Your task to perform on an android device: Do I have any events this weekend? Image 0: 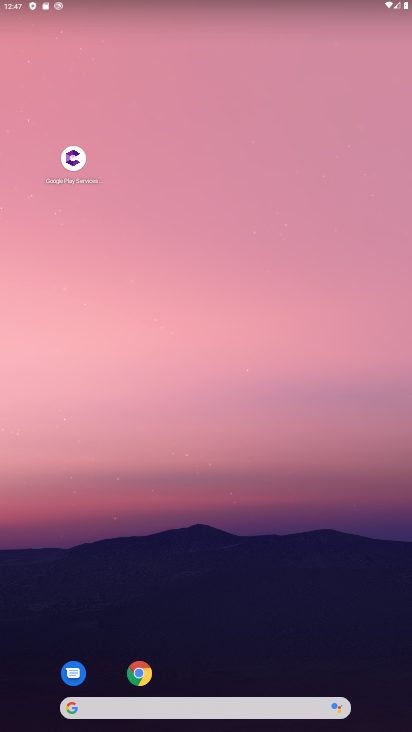
Step 0: drag from (357, 661) to (315, 215)
Your task to perform on an android device: Do I have any events this weekend? Image 1: 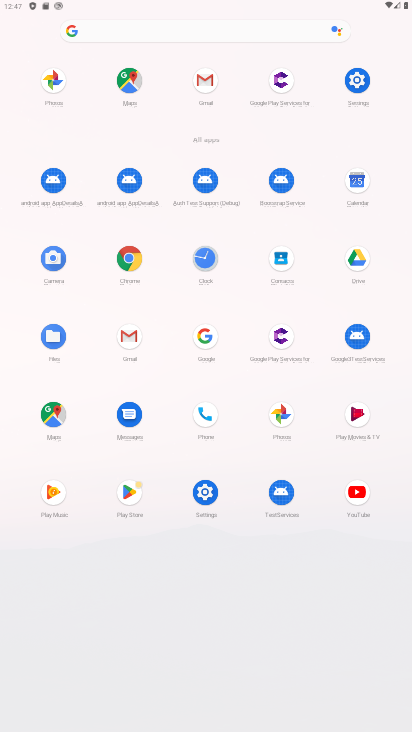
Step 1: click (356, 179)
Your task to perform on an android device: Do I have any events this weekend? Image 2: 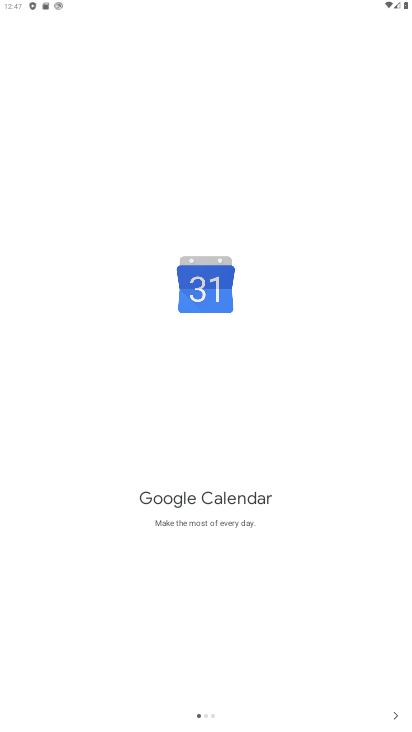
Step 2: click (395, 716)
Your task to perform on an android device: Do I have any events this weekend? Image 3: 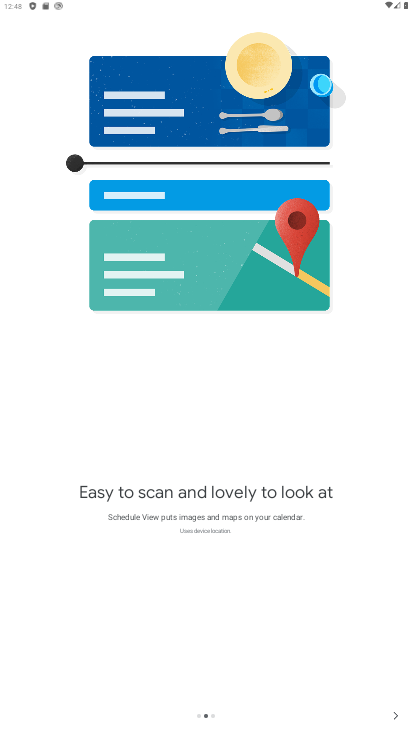
Step 3: click (395, 716)
Your task to perform on an android device: Do I have any events this weekend? Image 4: 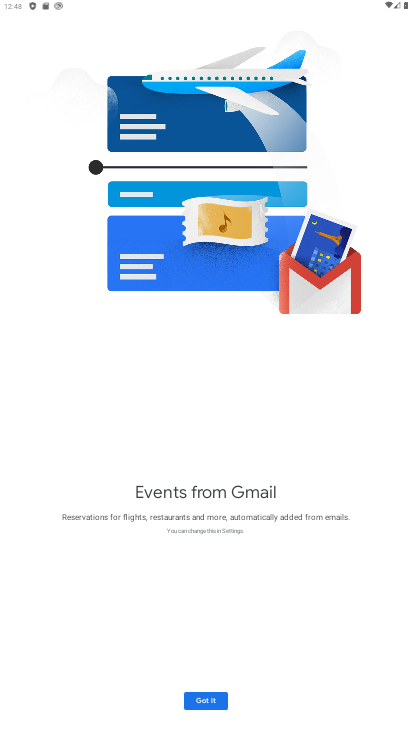
Step 4: click (201, 698)
Your task to perform on an android device: Do I have any events this weekend? Image 5: 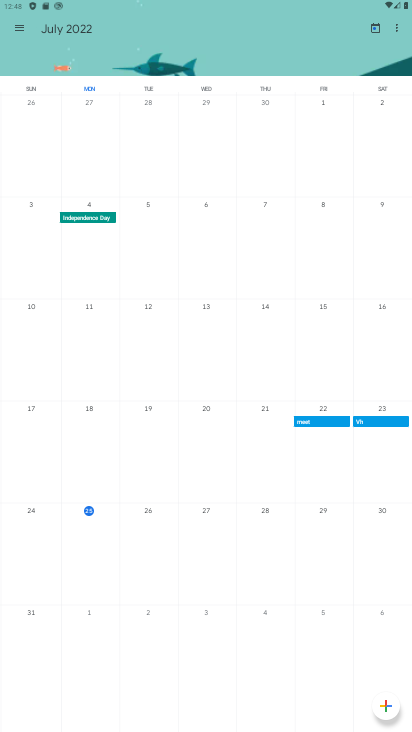
Step 5: click (18, 27)
Your task to perform on an android device: Do I have any events this weekend? Image 6: 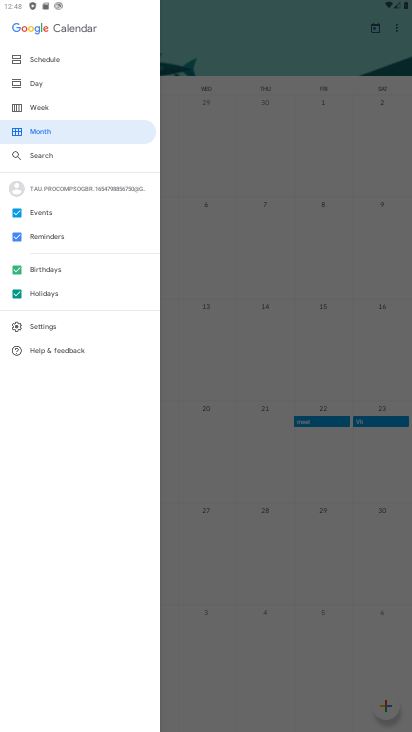
Step 6: click (33, 108)
Your task to perform on an android device: Do I have any events this weekend? Image 7: 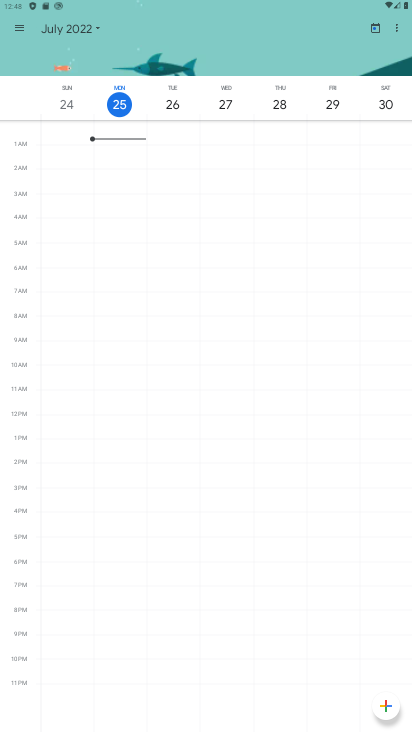
Step 7: click (97, 28)
Your task to perform on an android device: Do I have any events this weekend? Image 8: 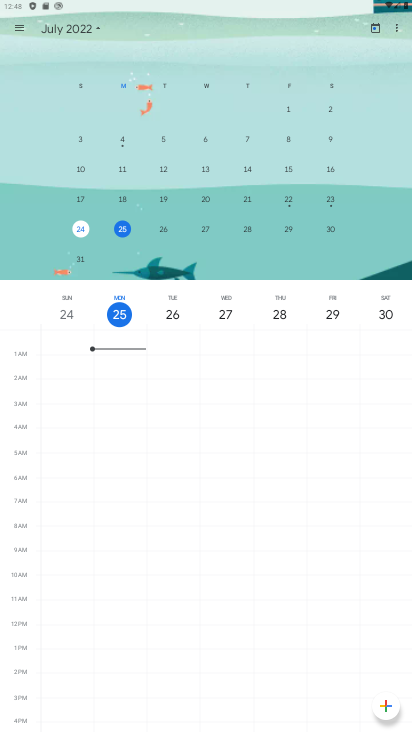
Step 8: drag from (334, 182) to (286, 194)
Your task to perform on an android device: Do I have any events this weekend? Image 9: 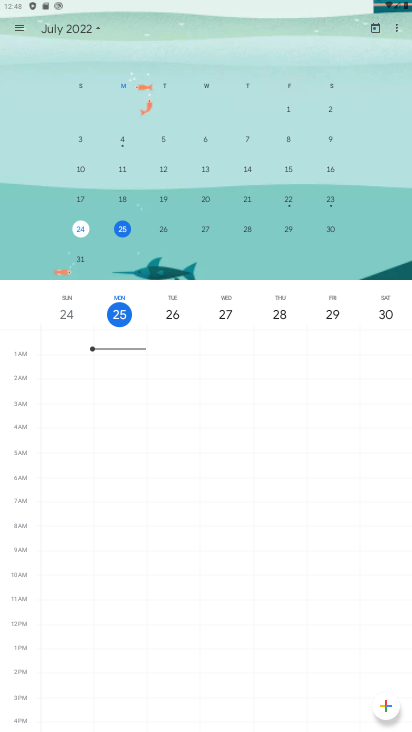
Step 9: click (126, 228)
Your task to perform on an android device: Do I have any events this weekend? Image 10: 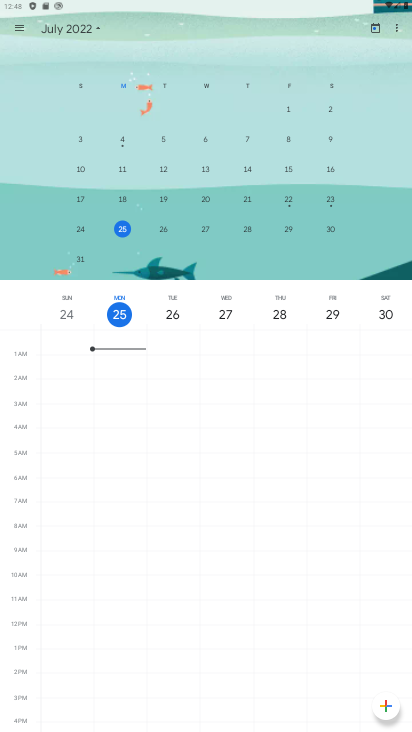
Step 10: task complete